Your task to perform on an android device: toggle javascript in the chrome app Image 0: 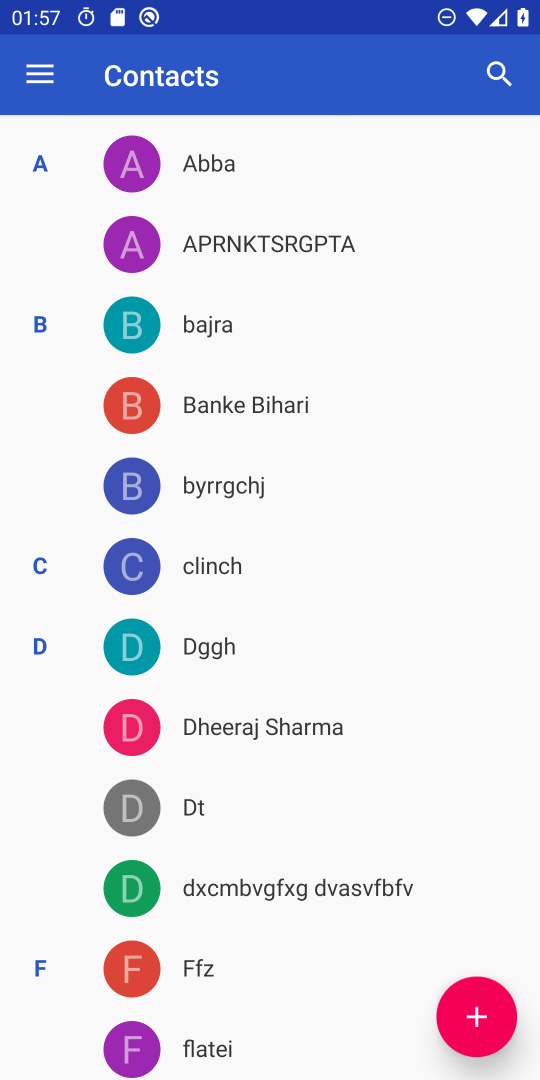
Step 0: press home button
Your task to perform on an android device: toggle javascript in the chrome app Image 1: 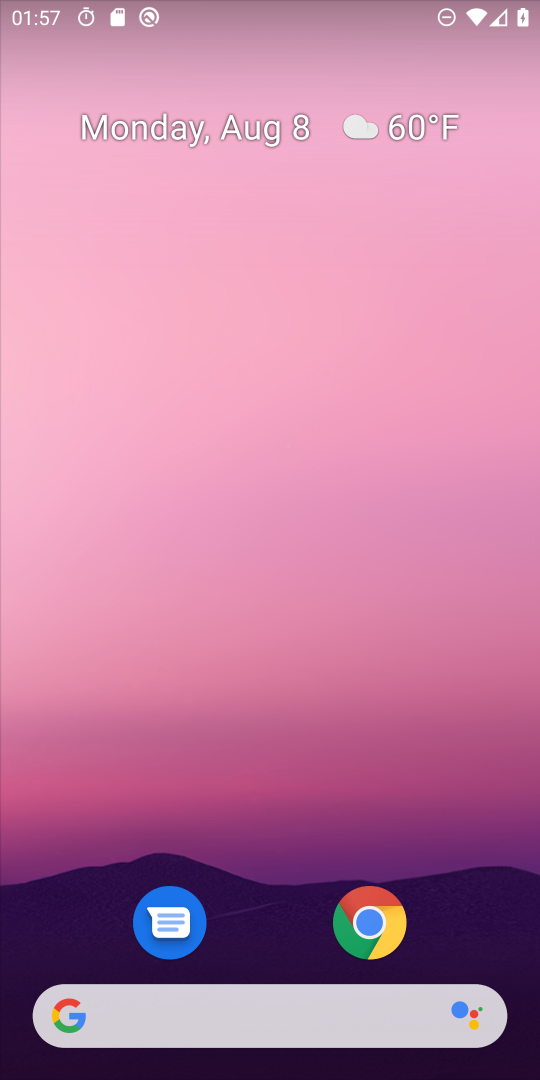
Step 1: drag from (439, 543) to (449, 83)
Your task to perform on an android device: toggle javascript in the chrome app Image 2: 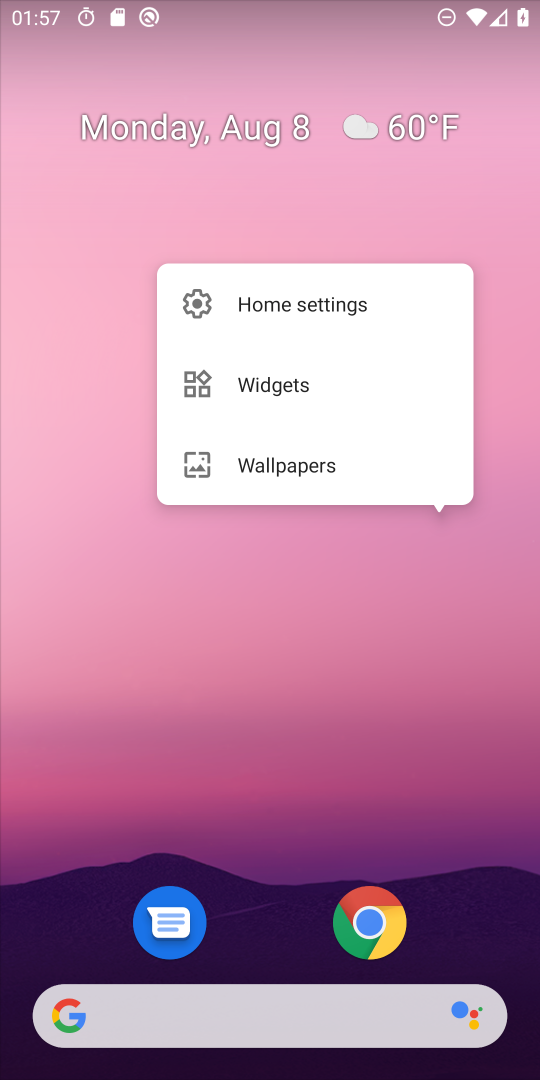
Step 2: click (289, 694)
Your task to perform on an android device: toggle javascript in the chrome app Image 3: 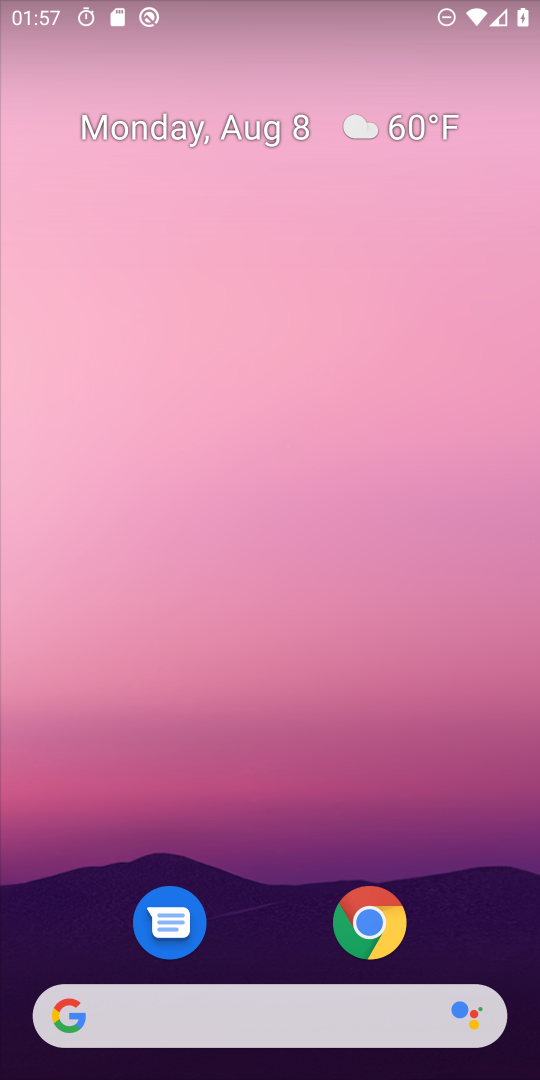
Step 3: drag from (233, 814) to (317, 168)
Your task to perform on an android device: toggle javascript in the chrome app Image 4: 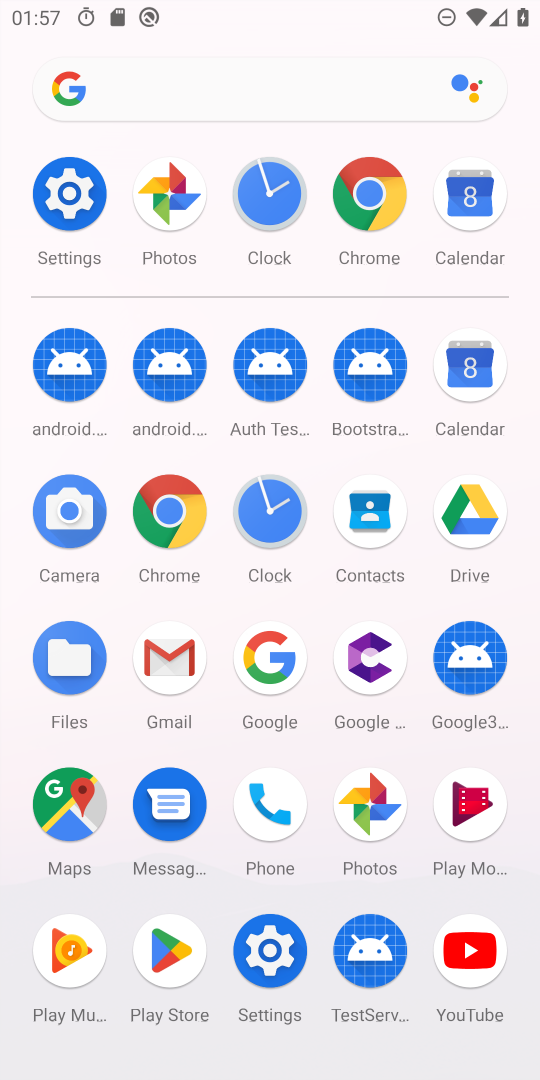
Step 4: click (173, 510)
Your task to perform on an android device: toggle javascript in the chrome app Image 5: 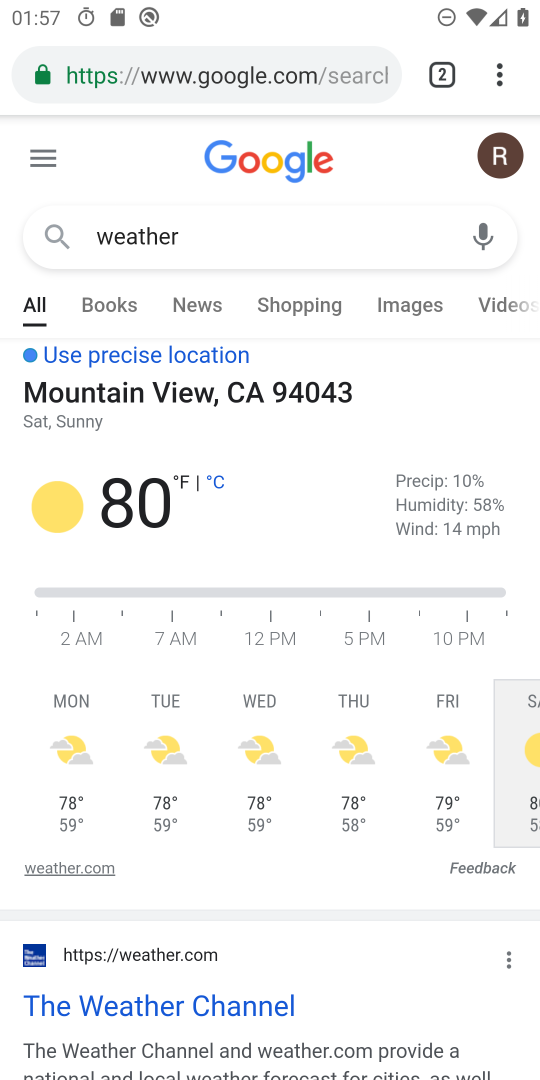
Step 5: click (500, 73)
Your task to perform on an android device: toggle javascript in the chrome app Image 6: 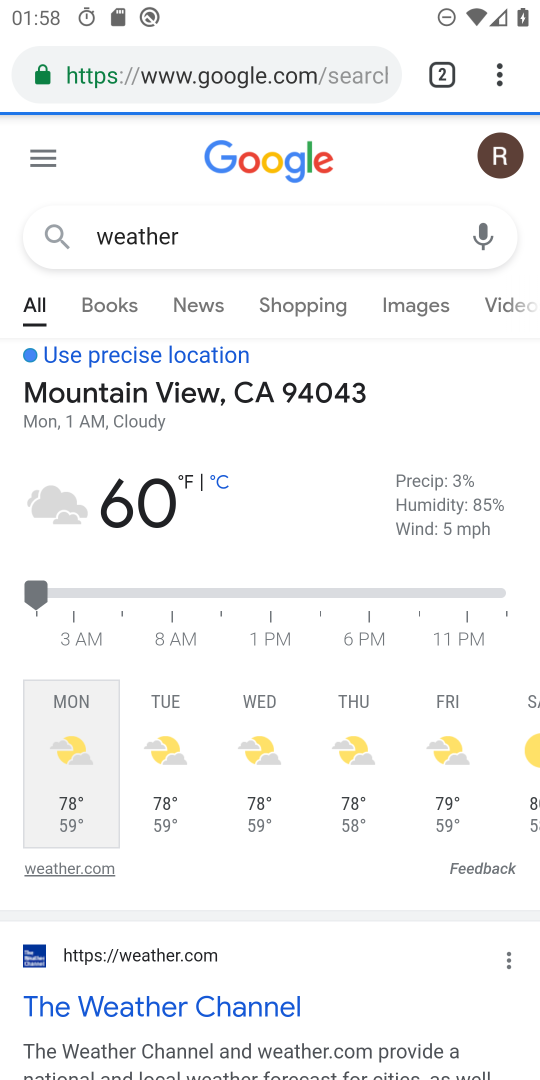
Step 6: drag from (493, 73) to (250, 917)
Your task to perform on an android device: toggle javascript in the chrome app Image 7: 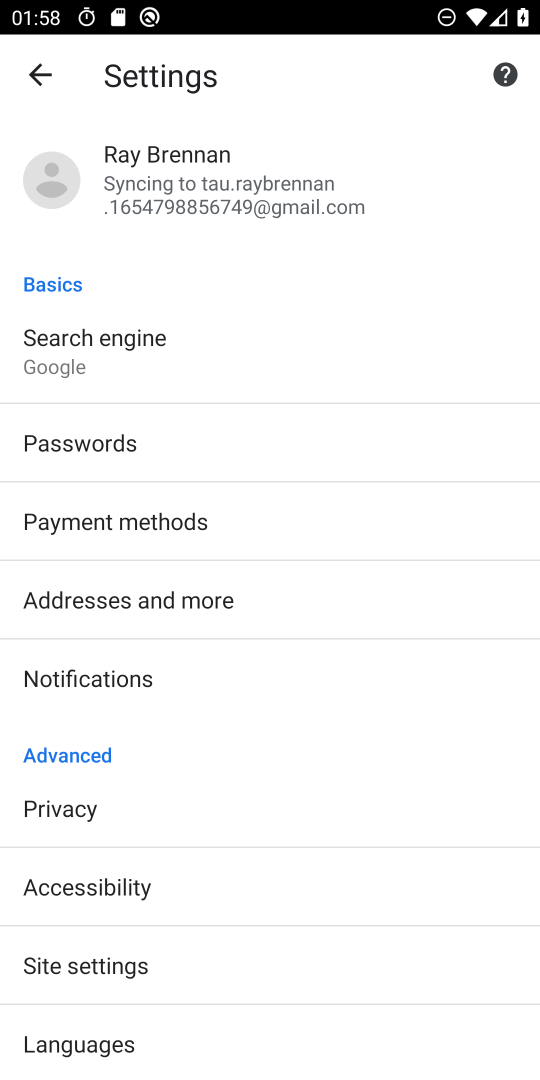
Step 7: click (98, 966)
Your task to perform on an android device: toggle javascript in the chrome app Image 8: 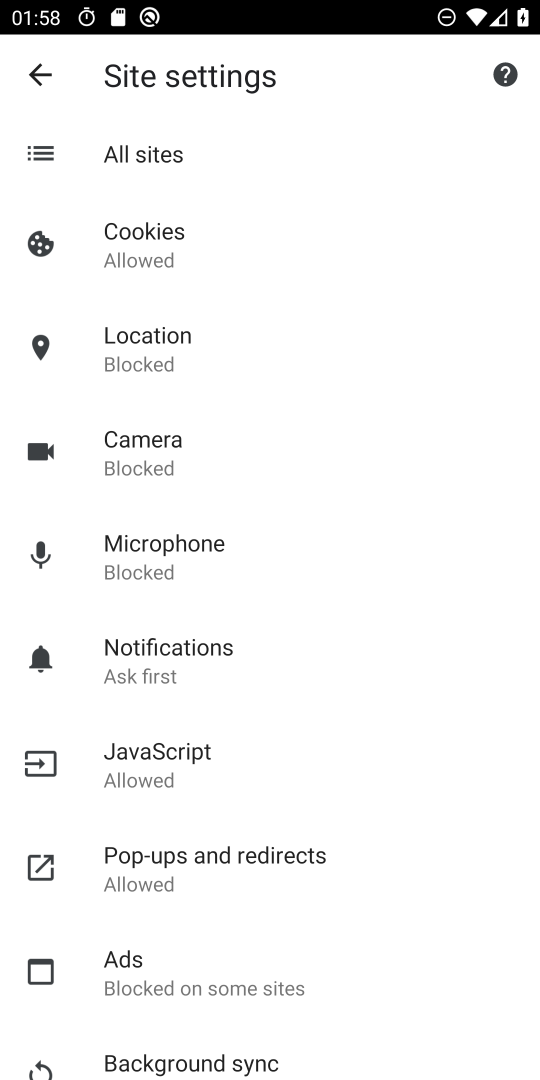
Step 8: click (201, 769)
Your task to perform on an android device: toggle javascript in the chrome app Image 9: 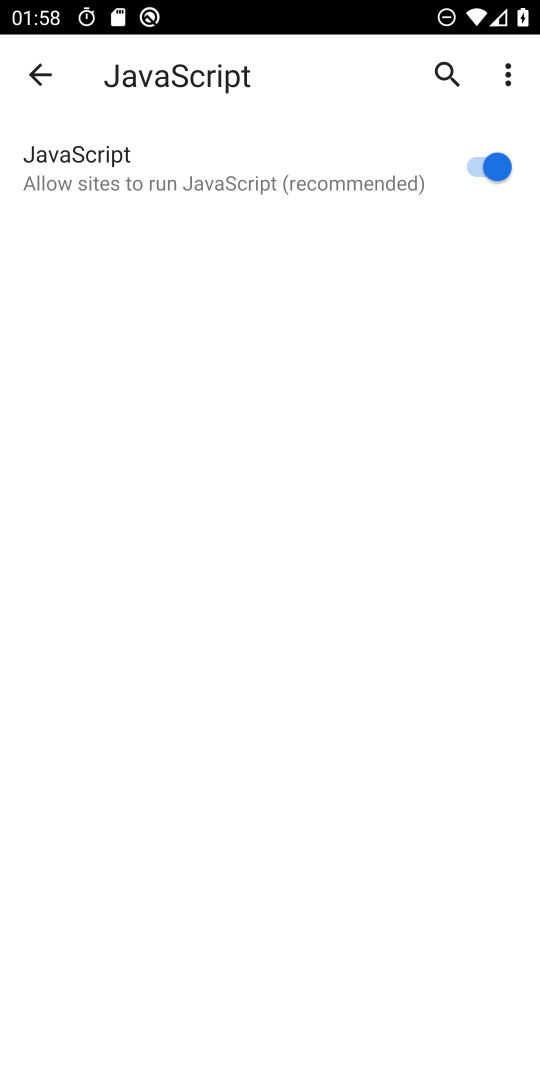
Step 9: click (514, 185)
Your task to perform on an android device: toggle javascript in the chrome app Image 10: 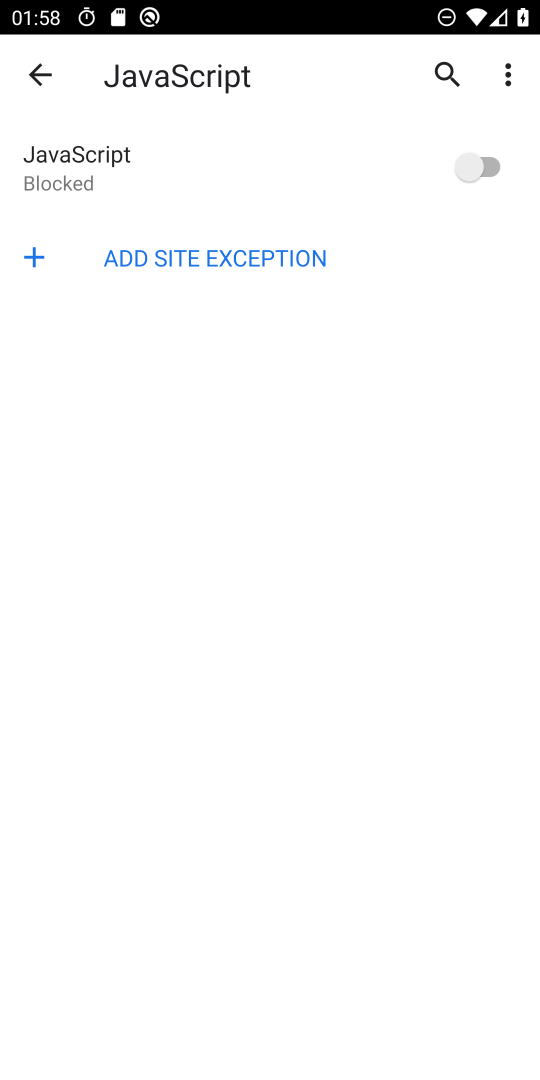
Step 10: task complete